Your task to perform on an android device: Go to wifi settings Image 0: 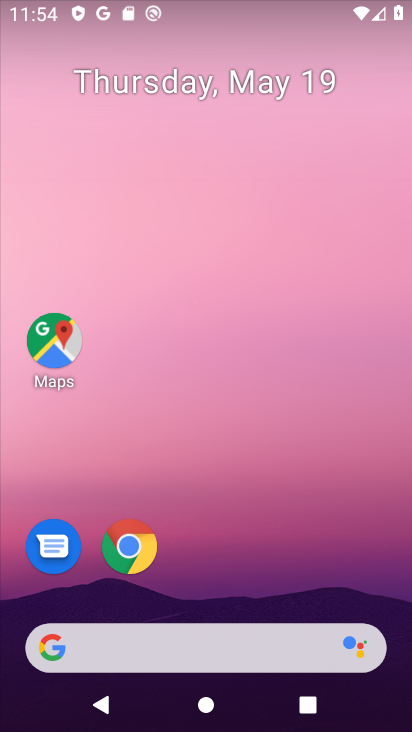
Step 0: drag from (306, 557) to (329, 114)
Your task to perform on an android device: Go to wifi settings Image 1: 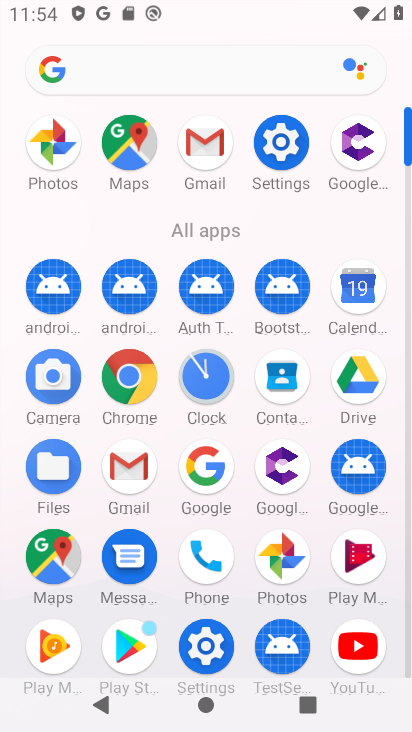
Step 1: click (296, 163)
Your task to perform on an android device: Go to wifi settings Image 2: 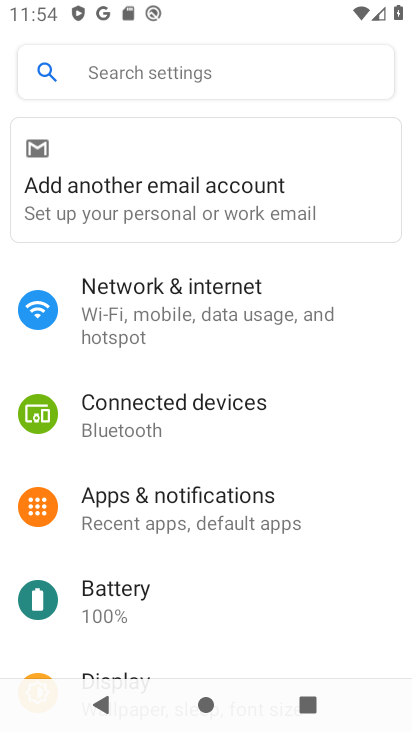
Step 2: click (230, 281)
Your task to perform on an android device: Go to wifi settings Image 3: 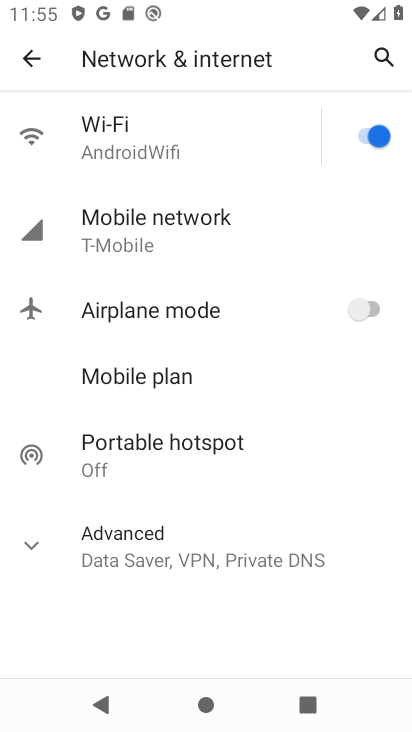
Step 3: click (230, 140)
Your task to perform on an android device: Go to wifi settings Image 4: 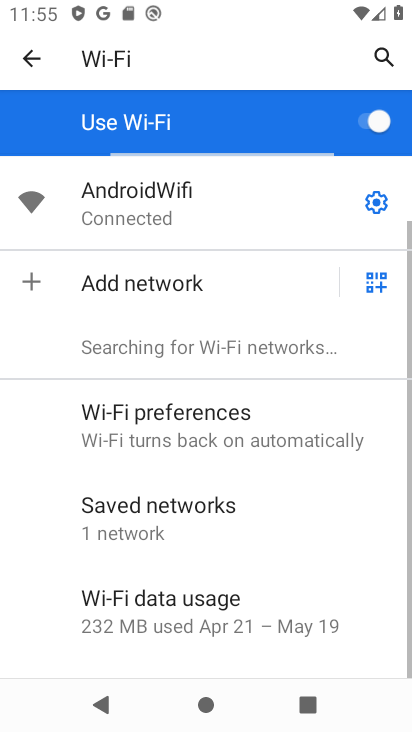
Step 4: click (377, 197)
Your task to perform on an android device: Go to wifi settings Image 5: 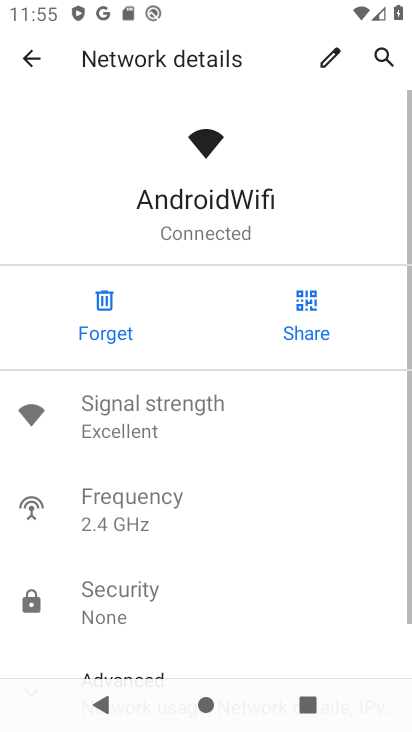
Step 5: task complete